Your task to perform on an android device: Do I have any events today? Image 0: 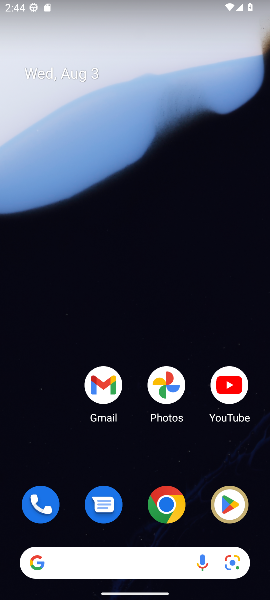
Step 0: drag from (50, 448) to (38, 72)
Your task to perform on an android device: Do I have any events today? Image 1: 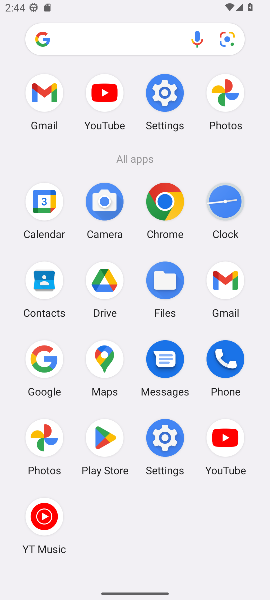
Step 1: click (39, 193)
Your task to perform on an android device: Do I have any events today? Image 2: 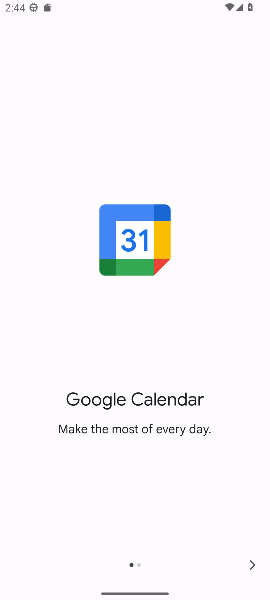
Step 2: click (253, 555)
Your task to perform on an android device: Do I have any events today? Image 3: 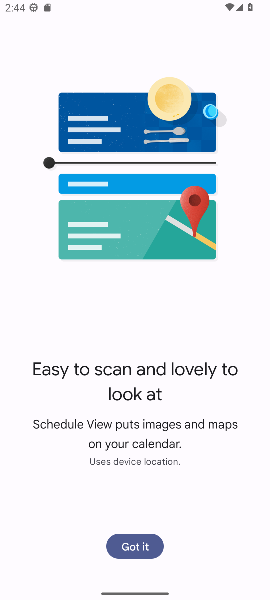
Step 3: click (130, 549)
Your task to perform on an android device: Do I have any events today? Image 4: 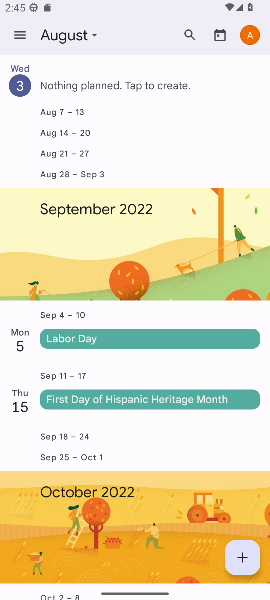
Step 4: click (31, 87)
Your task to perform on an android device: Do I have any events today? Image 5: 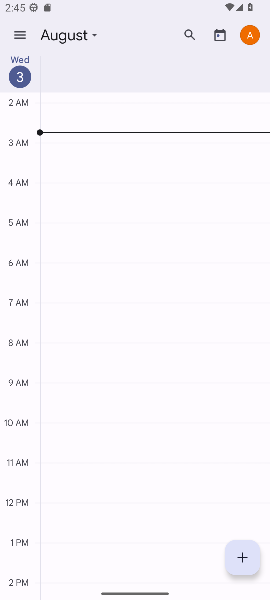
Step 5: task complete